Your task to perform on an android device: Open Google Maps Image 0: 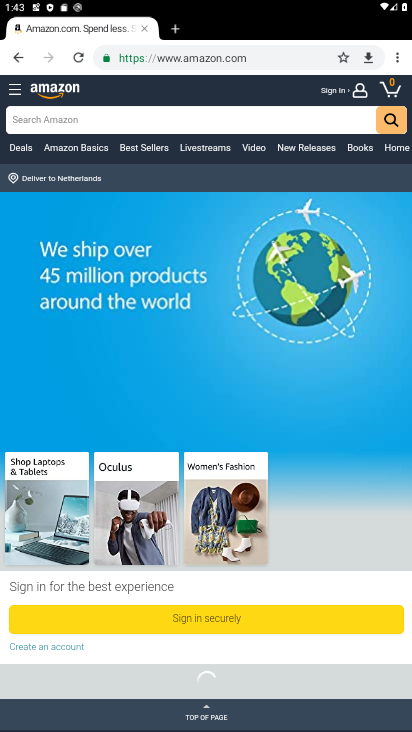
Step 0: press home button
Your task to perform on an android device: Open Google Maps Image 1: 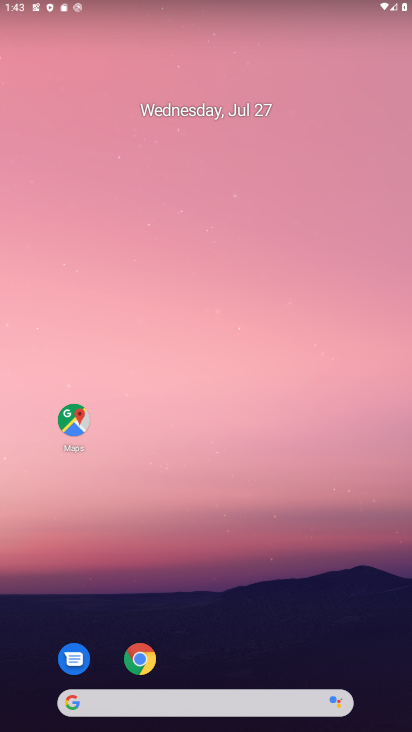
Step 1: drag from (339, 646) to (317, 115)
Your task to perform on an android device: Open Google Maps Image 2: 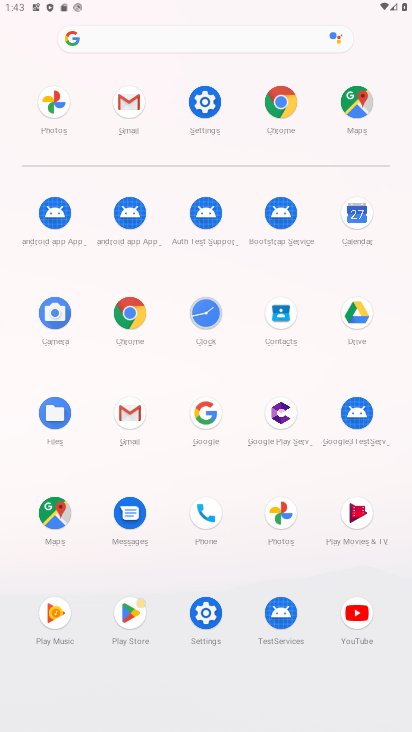
Step 2: click (61, 508)
Your task to perform on an android device: Open Google Maps Image 3: 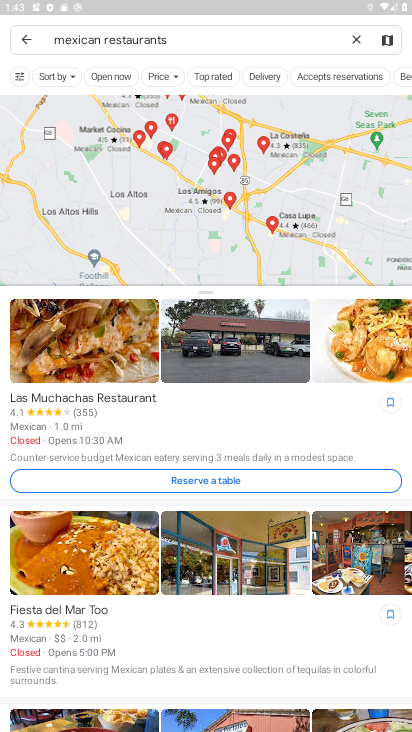
Step 3: task complete